Your task to perform on an android device: Open the calendar app, open the side menu, and click the "Day" option Image 0: 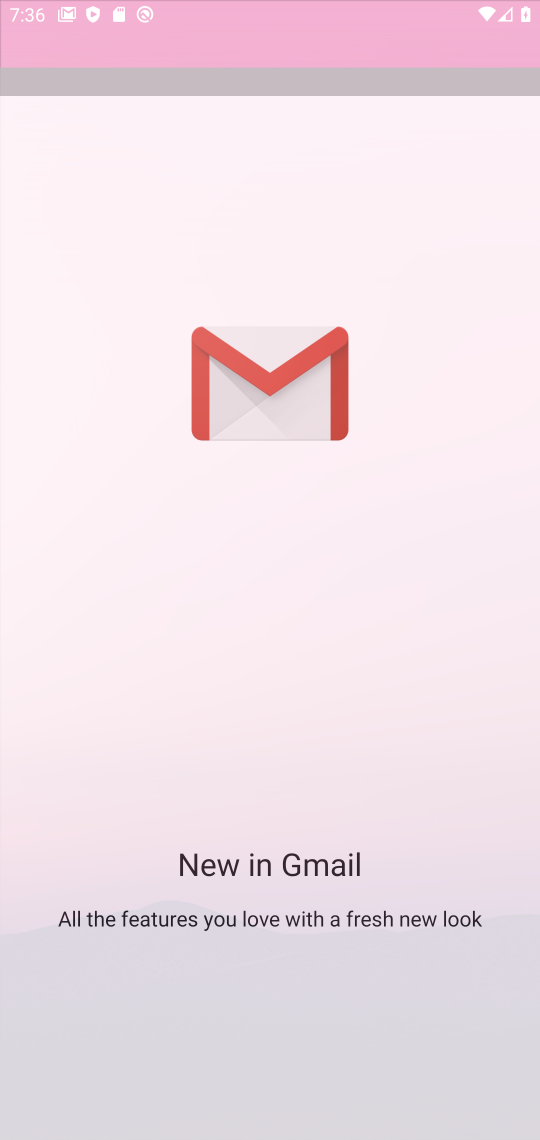
Step 0: click (478, 779)
Your task to perform on an android device: Open the calendar app, open the side menu, and click the "Day" option Image 1: 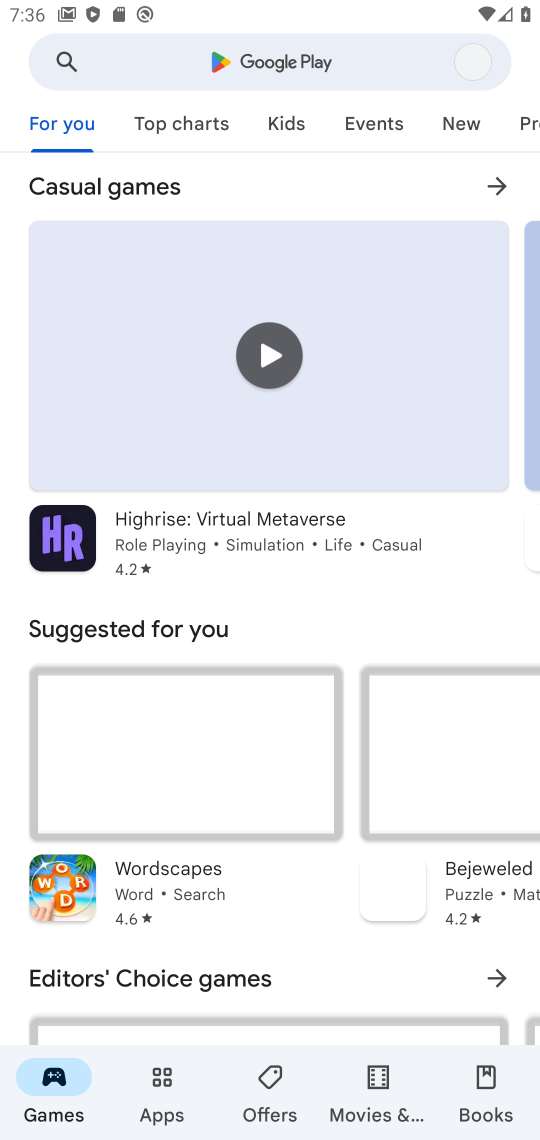
Step 1: press home button
Your task to perform on an android device: Open the calendar app, open the side menu, and click the "Day" option Image 2: 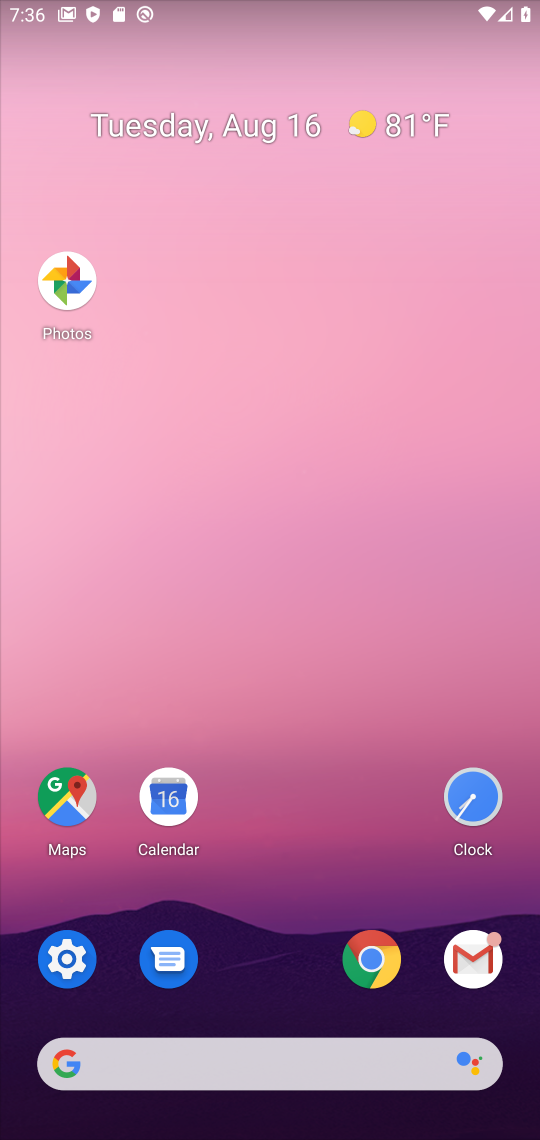
Step 2: drag from (262, 980) to (212, 238)
Your task to perform on an android device: Open the calendar app, open the side menu, and click the "Day" option Image 3: 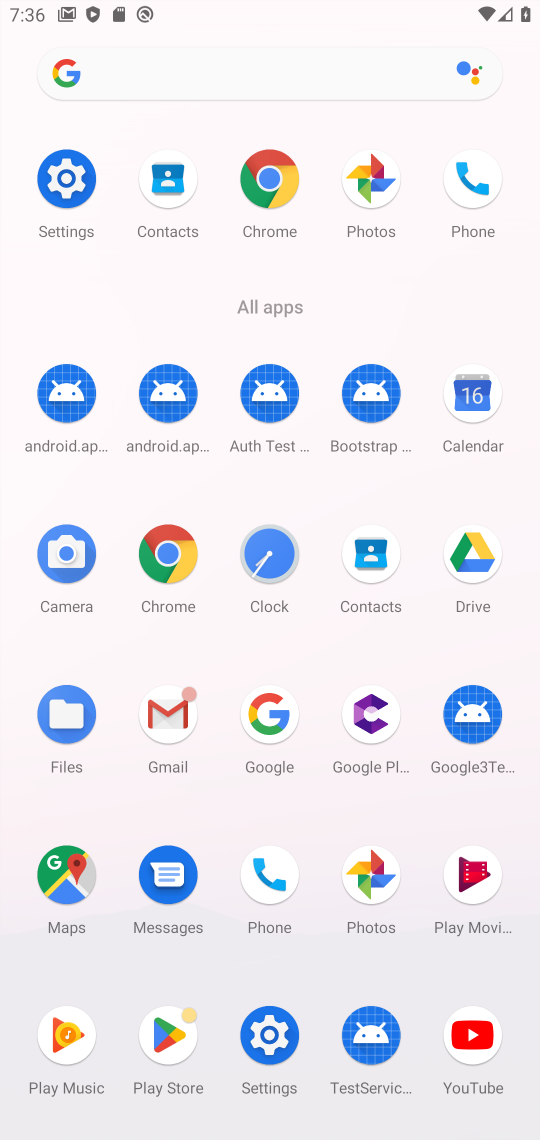
Step 3: click (474, 405)
Your task to perform on an android device: Open the calendar app, open the side menu, and click the "Day" option Image 4: 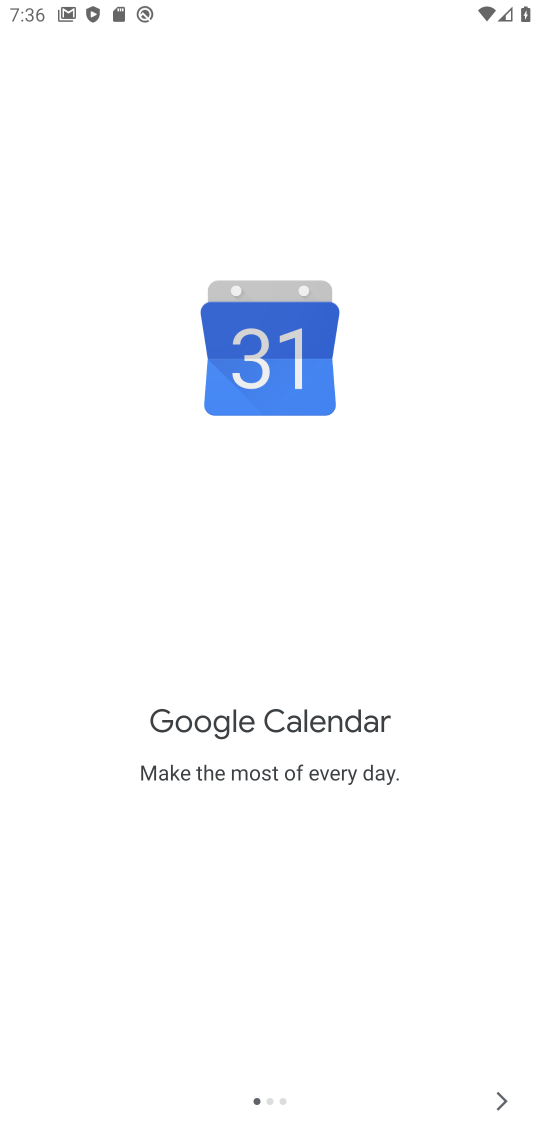
Step 4: click (503, 1094)
Your task to perform on an android device: Open the calendar app, open the side menu, and click the "Day" option Image 5: 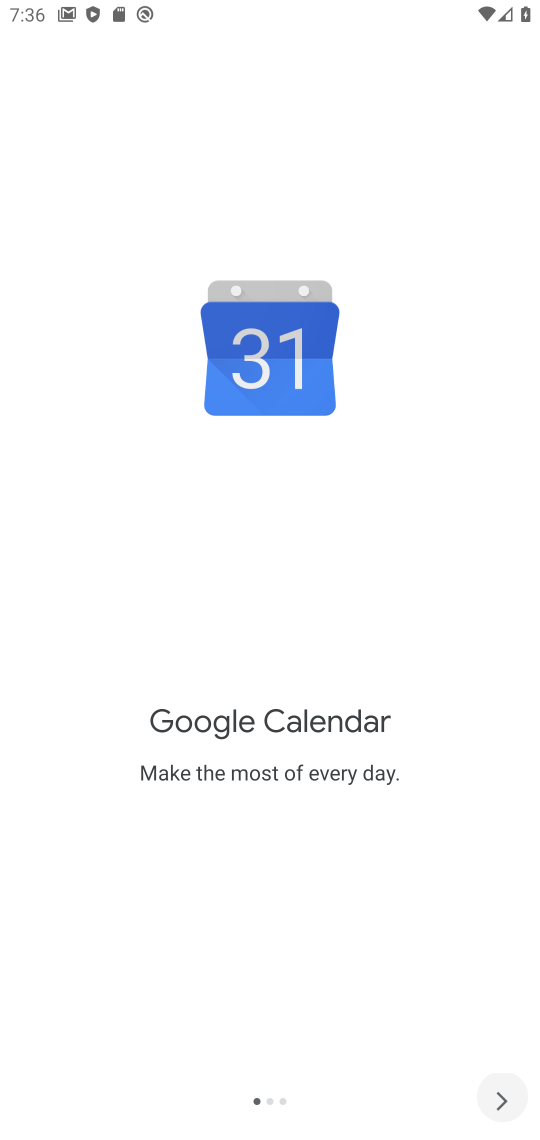
Step 5: click (503, 1094)
Your task to perform on an android device: Open the calendar app, open the side menu, and click the "Day" option Image 6: 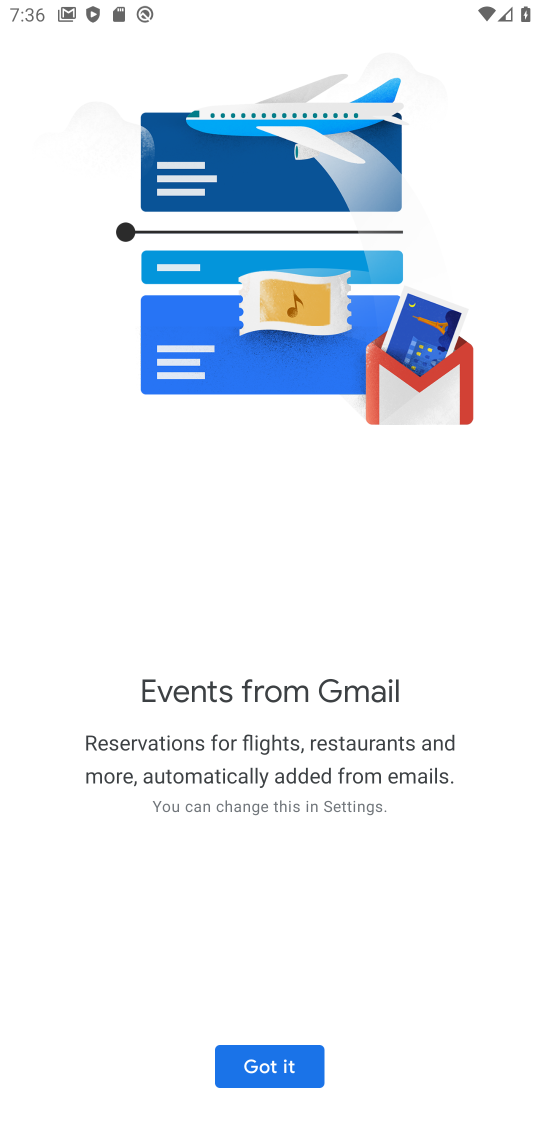
Step 6: click (278, 1064)
Your task to perform on an android device: Open the calendar app, open the side menu, and click the "Day" option Image 7: 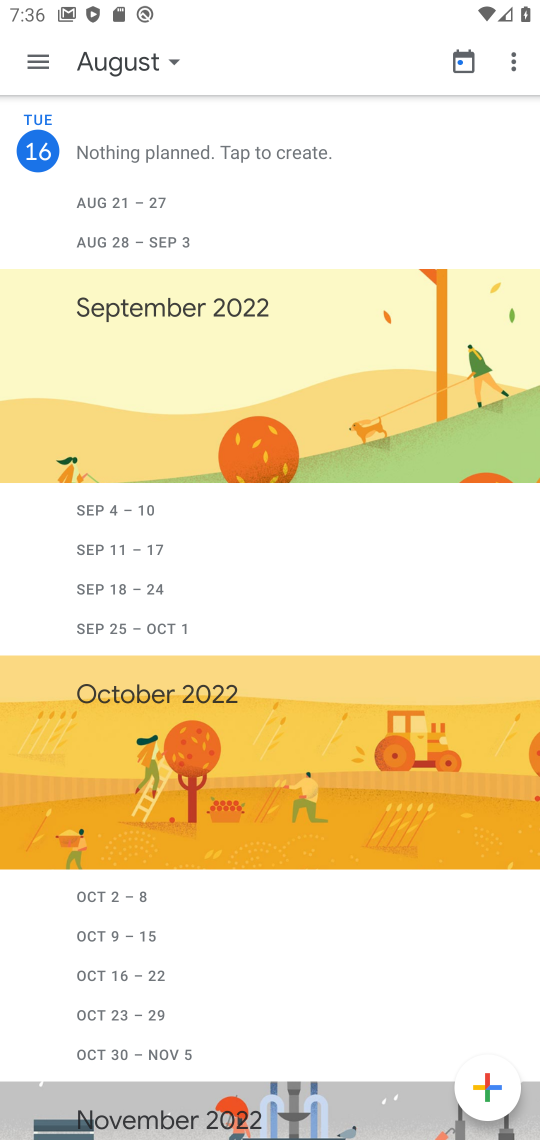
Step 7: click (35, 55)
Your task to perform on an android device: Open the calendar app, open the side menu, and click the "Day" option Image 8: 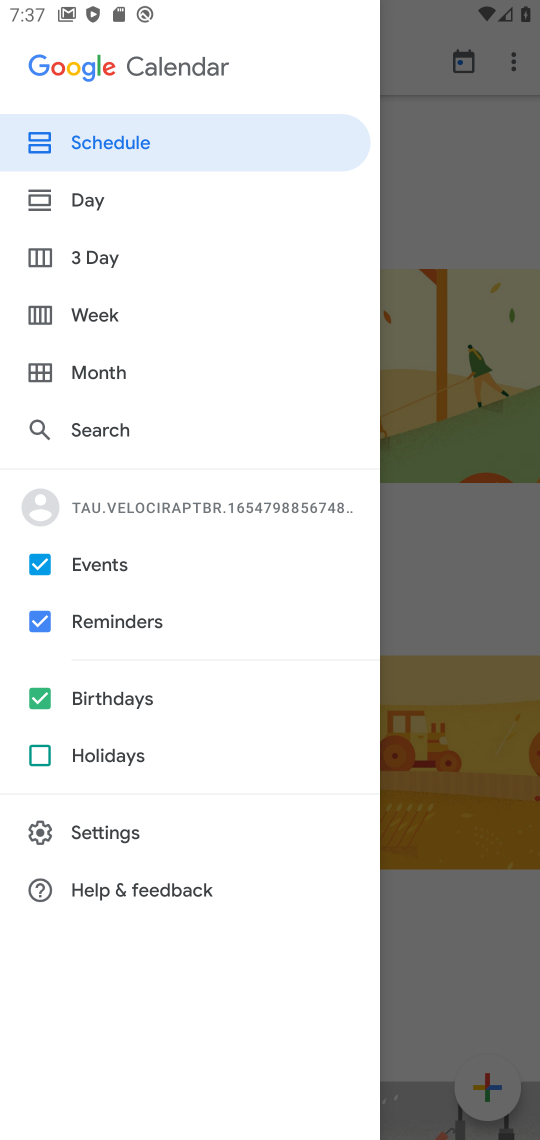
Step 8: click (82, 202)
Your task to perform on an android device: Open the calendar app, open the side menu, and click the "Day" option Image 9: 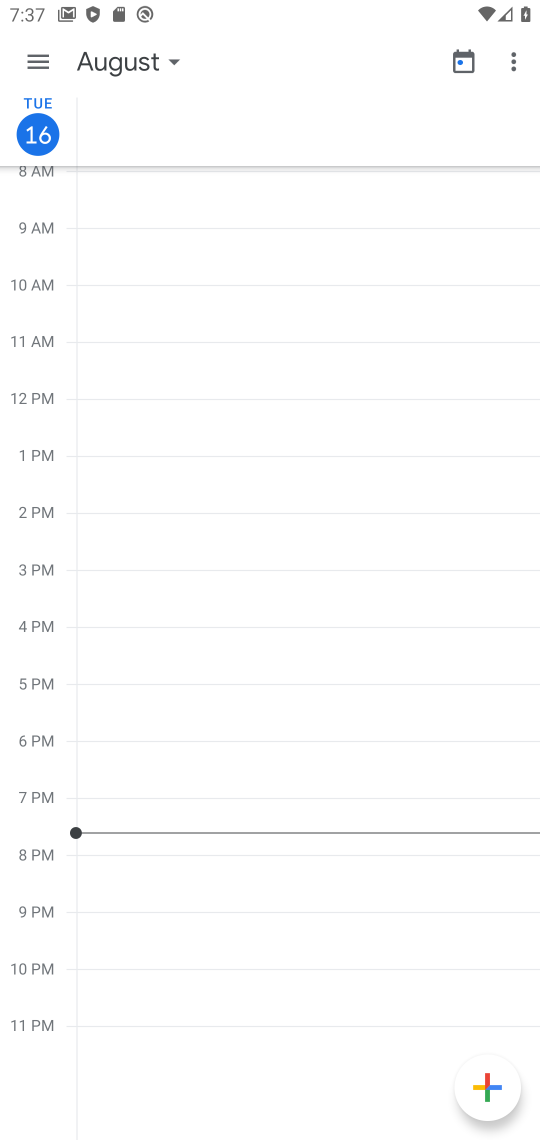
Step 9: task complete